Your task to perform on an android device: Go to CNN.com Image 0: 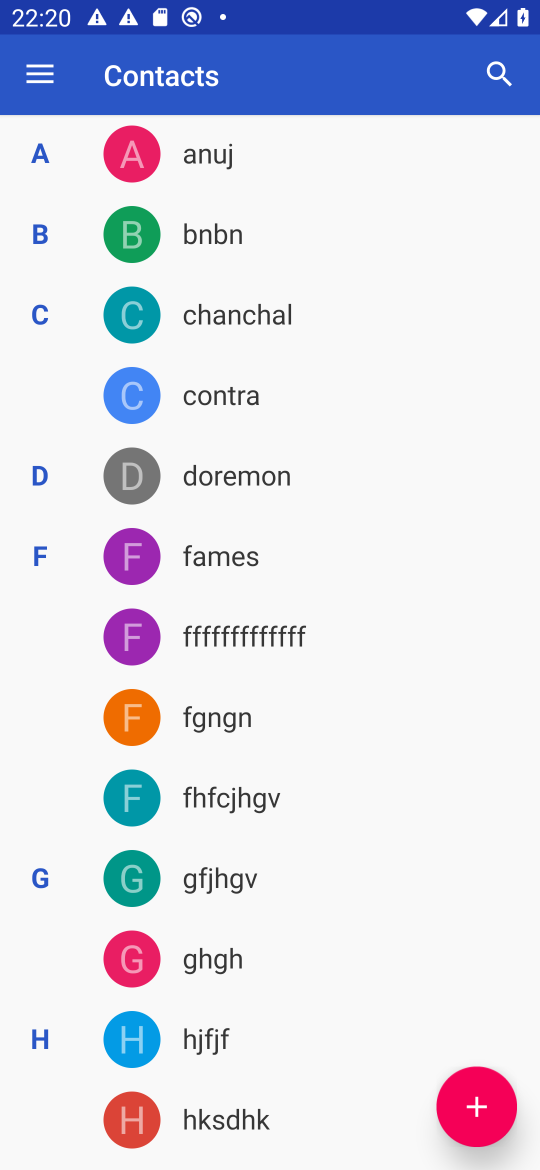
Step 0: press home button
Your task to perform on an android device: Go to CNN.com Image 1: 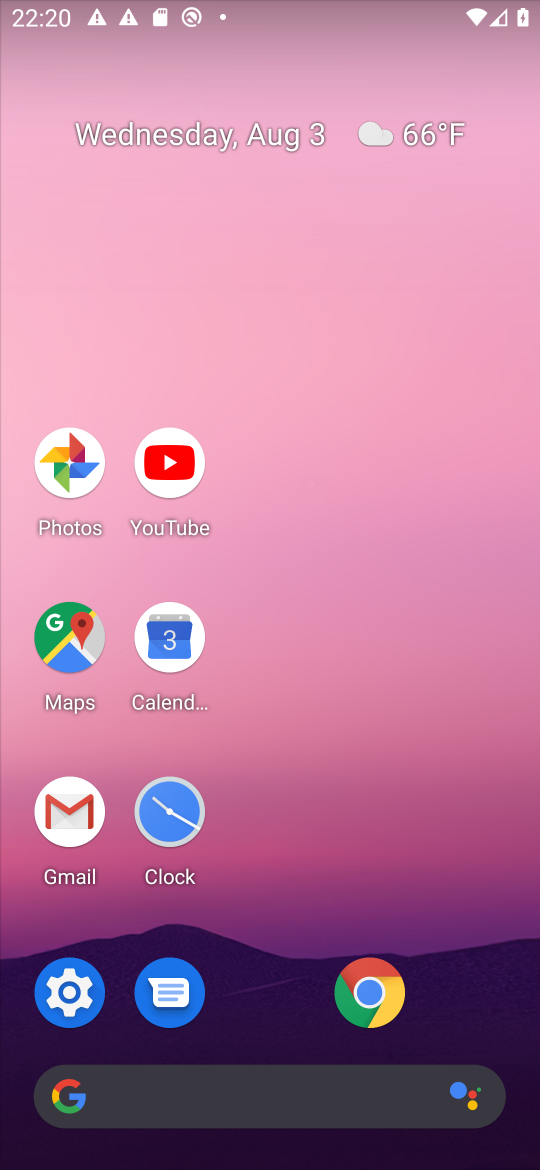
Step 1: click (361, 998)
Your task to perform on an android device: Go to CNN.com Image 2: 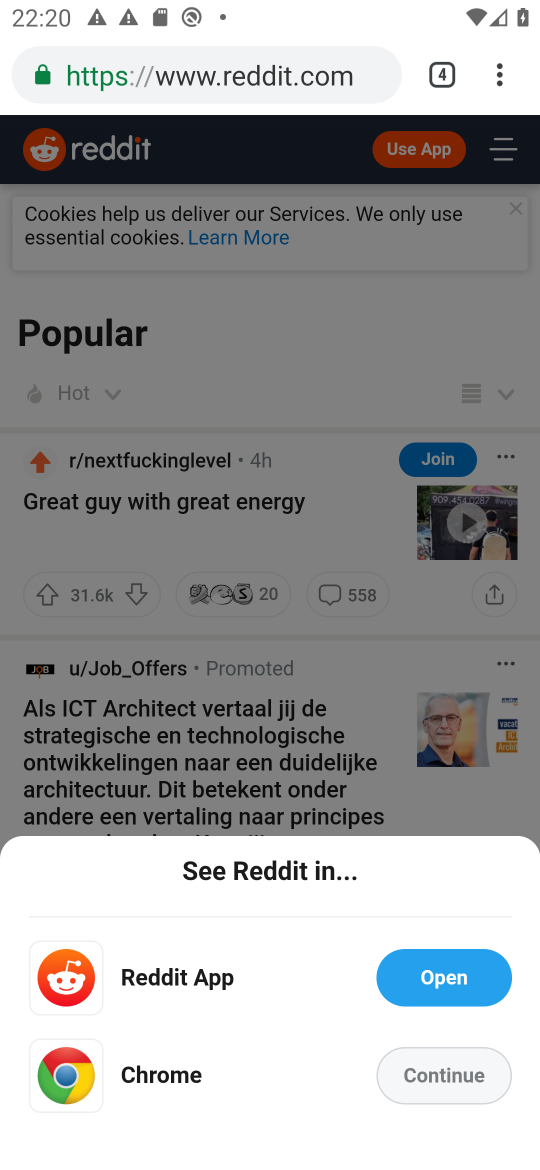
Step 2: click (451, 1079)
Your task to perform on an android device: Go to CNN.com Image 3: 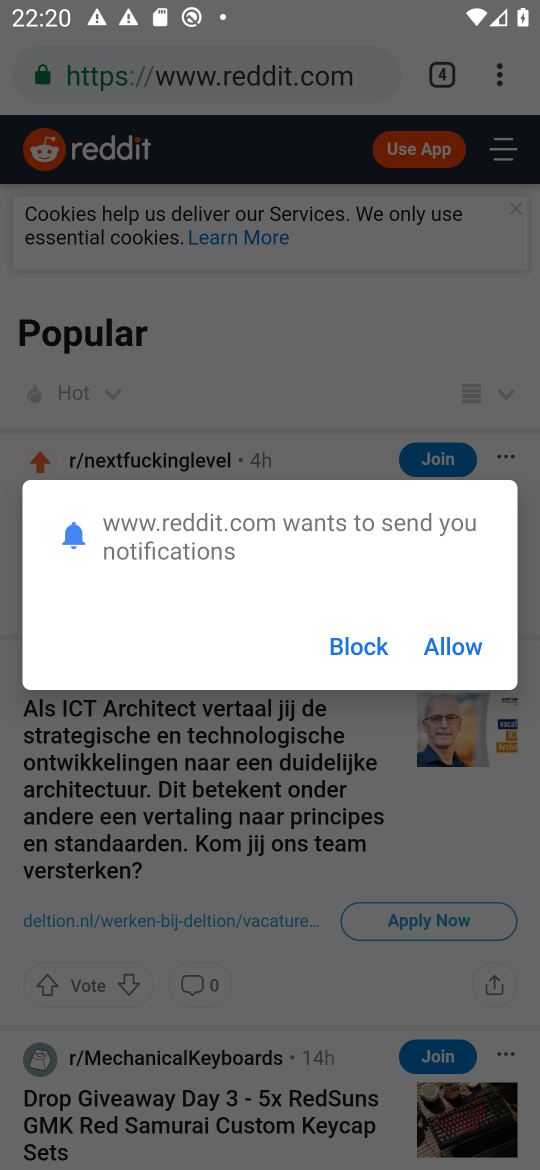
Step 3: click (441, 660)
Your task to perform on an android device: Go to CNN.com Image 4: 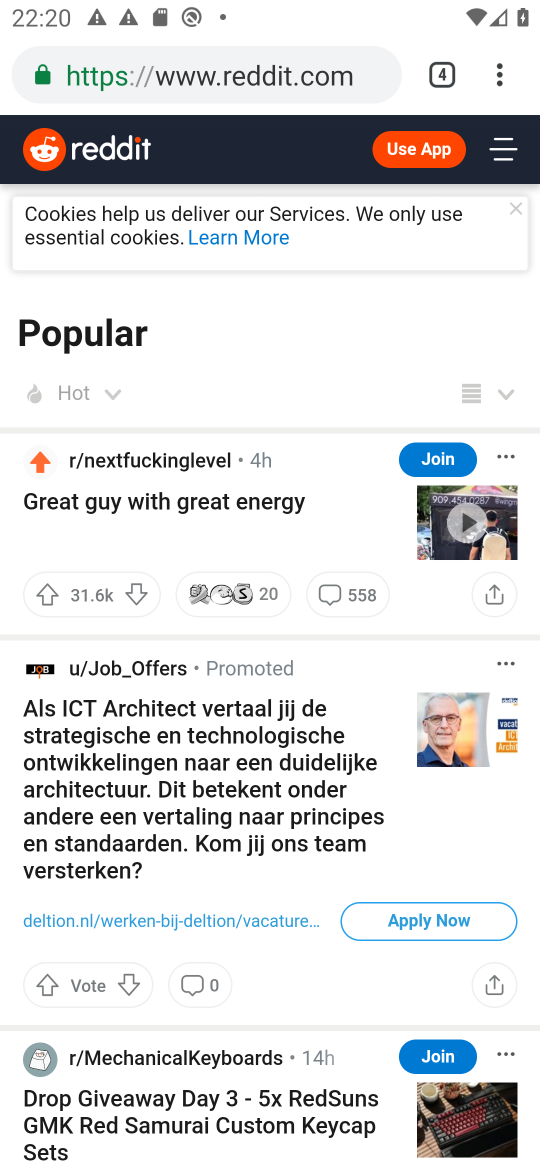
Step 4: click (507, 73)
Your task to perform on an android device: Go to CNN.com Image 5: 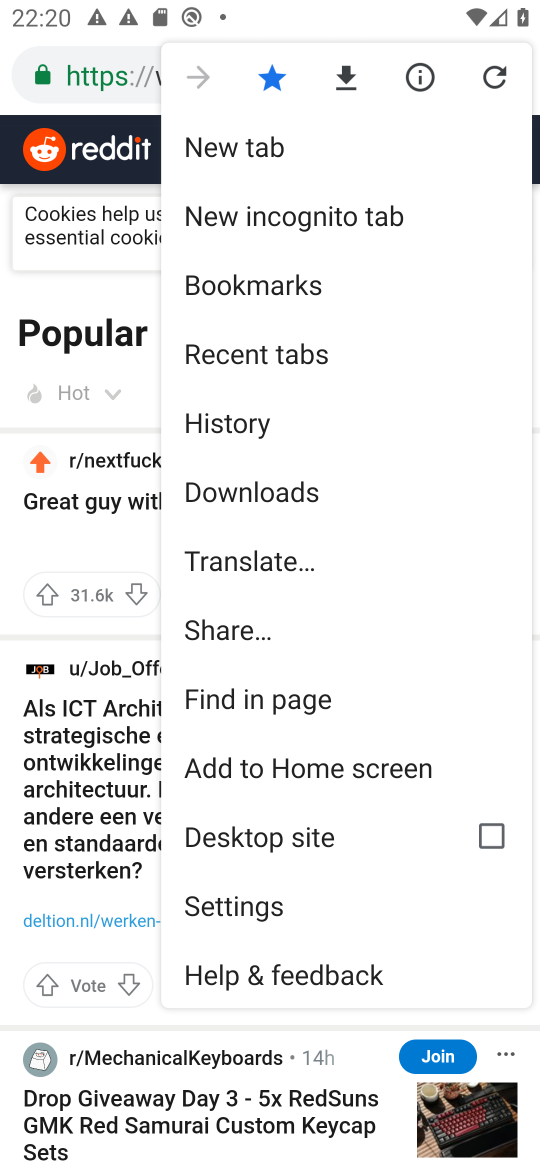
Step 5: click (266, 147)
Your task to perform on an android device: Go to CNN.com Image 6: 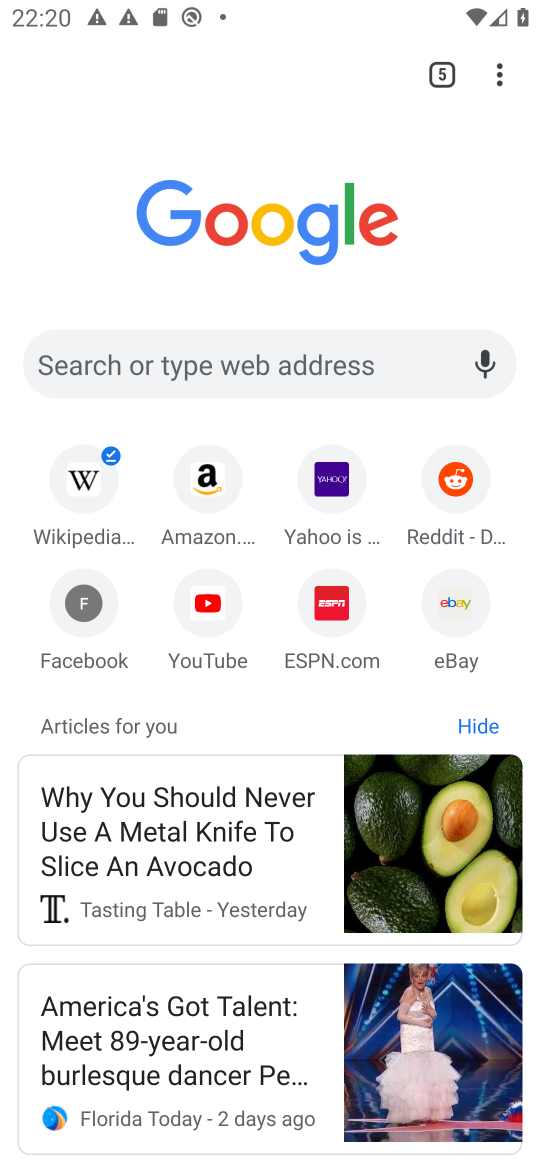
Step 6: click (226, 365)
Your task to perform on an android device: Go to CNN.com Image 7: 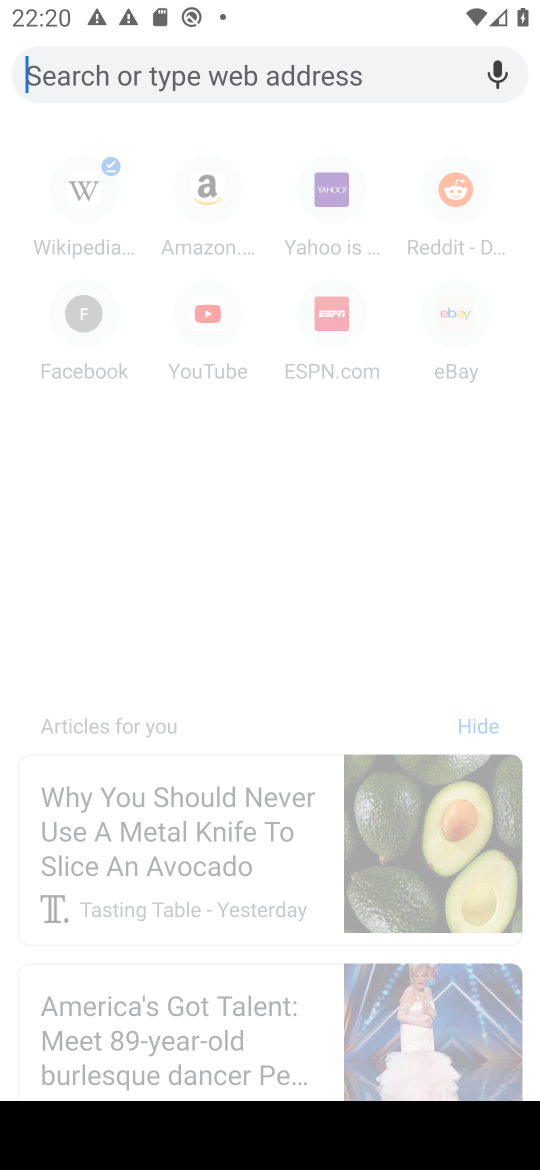
Step 7: type "cnn.com"
Your task to perform on an android device: Go to CNN.com Image 8: 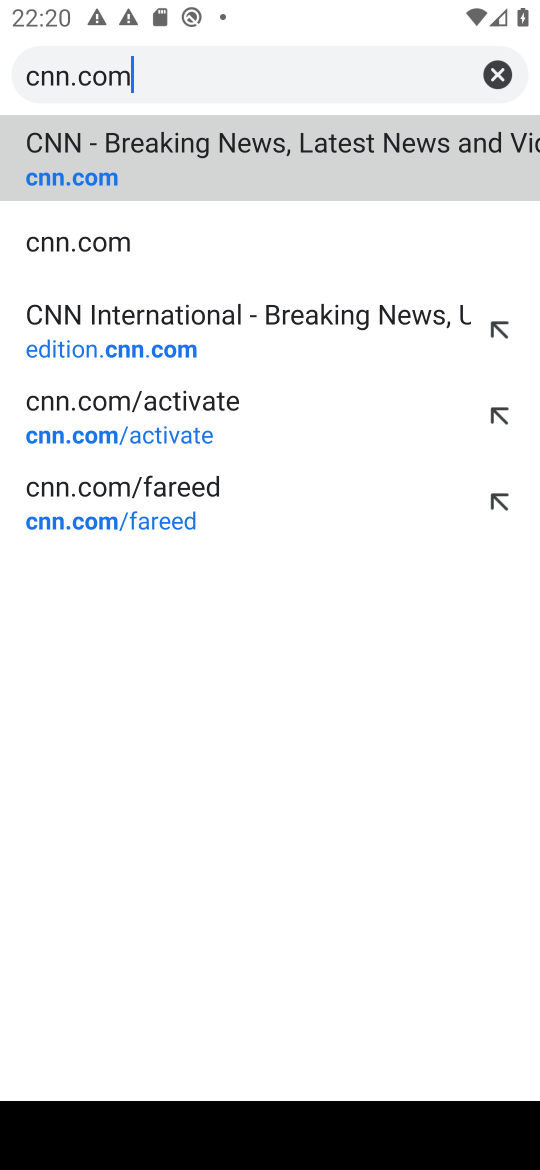
Step 8: click (166, 157)
Your task to perform on an android device: Go to CNN.com Image 9: 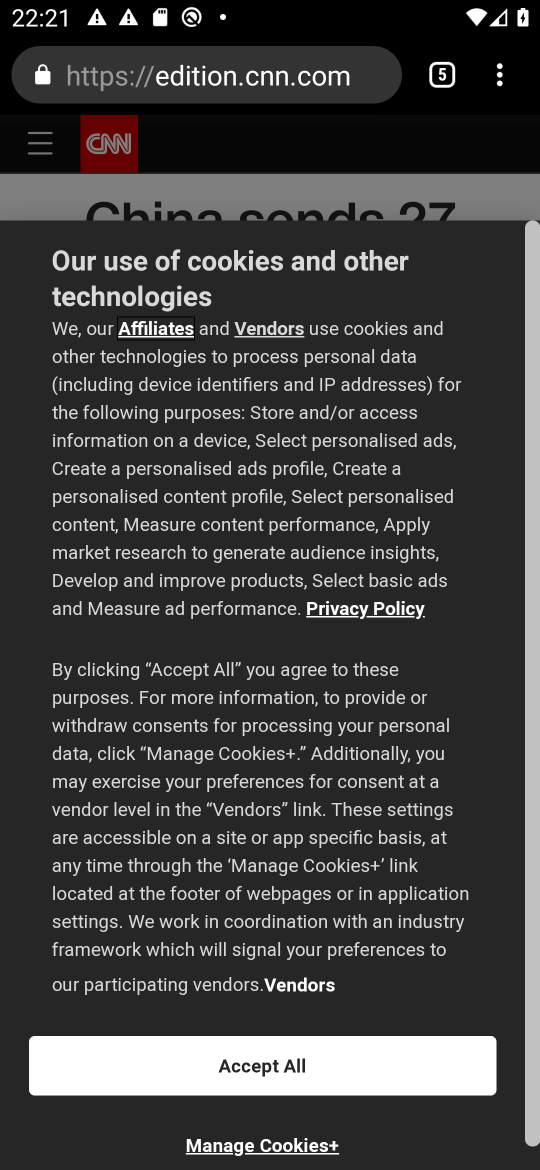
Step 9: click (327, 1053)
Your task to perform on an android device: Go to CNN.com Image 10: 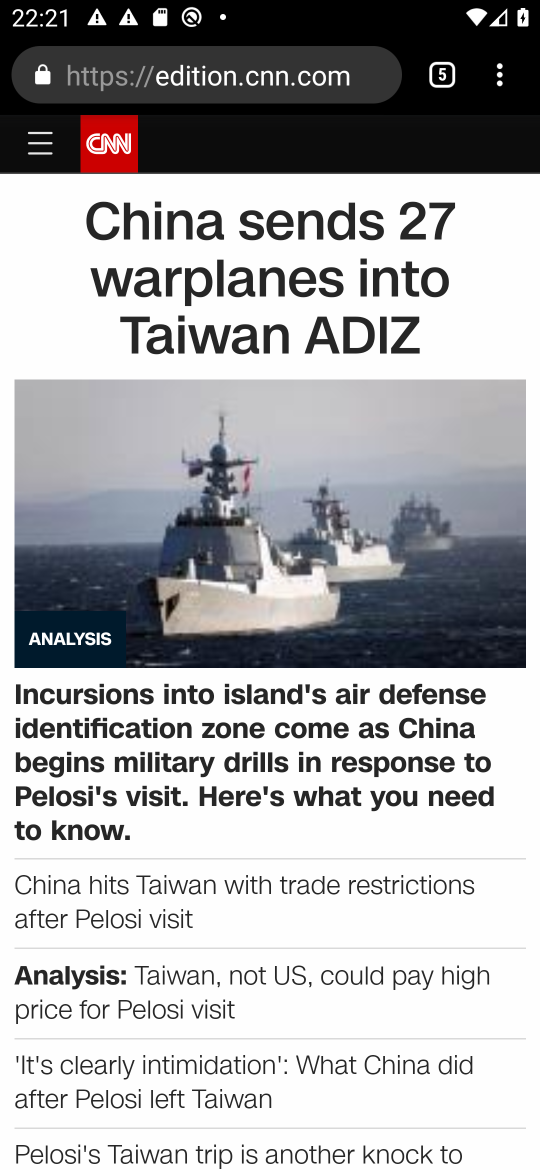
Step 10: task complete